Your task to perform on an android device: visit the assistant section in the google photos Image 0: 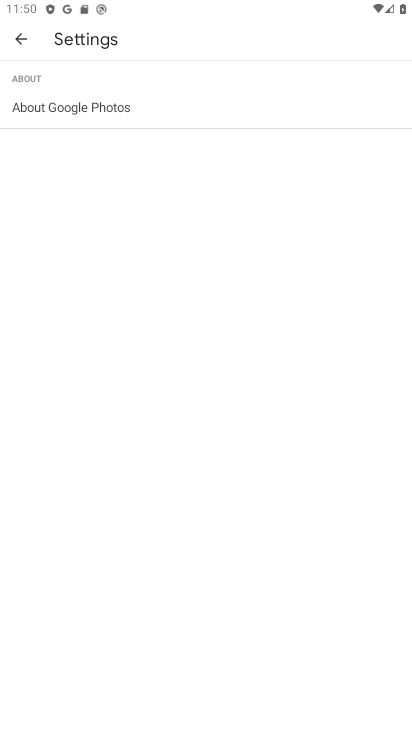
Step 0: press home button
Your task to perform on an android device: visit the assistant section in the google photos Image 1: 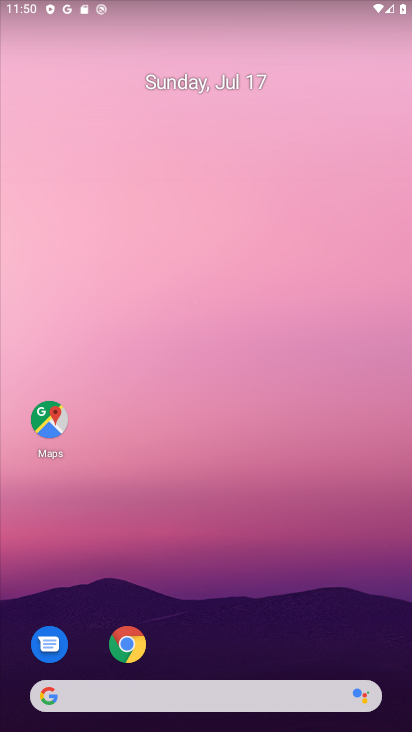
Step 1: drag from (337, 651) to (239, 78)
Your task to perform on an android device: visit the assistant section in the google photos Image 2: 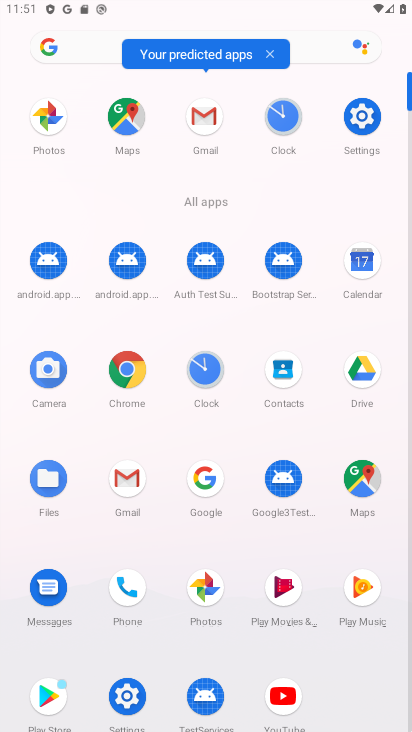
Step 2: click (50, 128)
Your task to perform on an android device: visit the assistant section in the google photos Image 3: 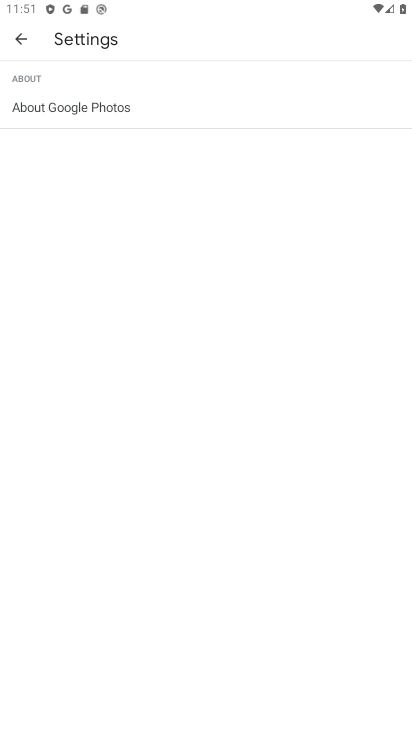
Step 3: click (25, 44)
Your task to perform on an android device: visit the assistant section in the google photos Image 4: 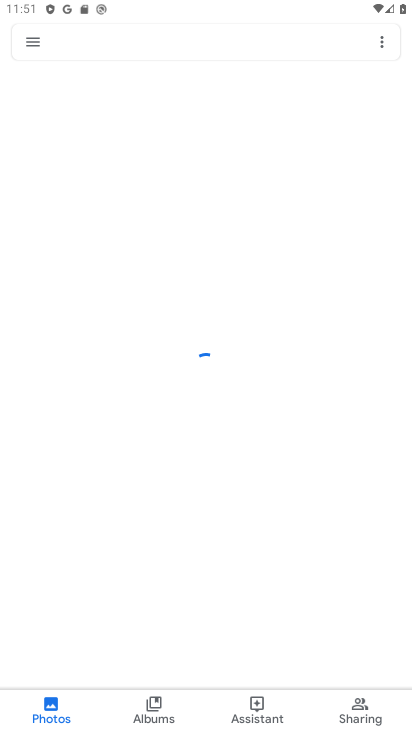
Step 4: click (251, 710)
Your task to perform on an android device: visit the assistant section in the google photos Image 5: 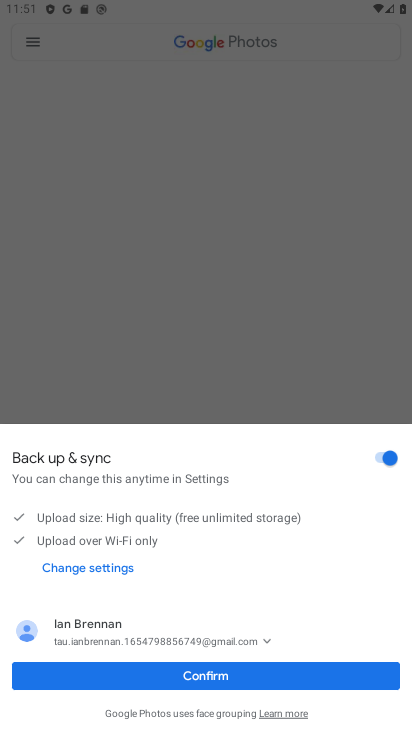
Step 5: click (246, 680)
Your task to perform on an android device: visit the assistant section in the google photos Image 6: 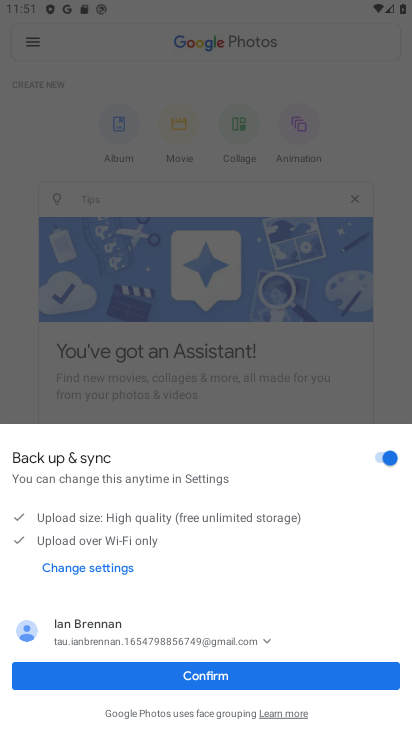
Step 6: click (246, 680)
Your task to perform on an android device: visit the assistant section in the google photos Image 7: 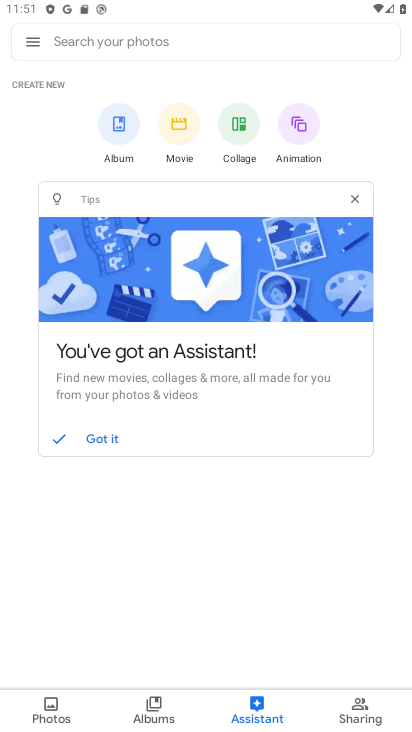
Step 7: task complete